Your task to perform on an android device: toggle translation in the chrome app Image 0: 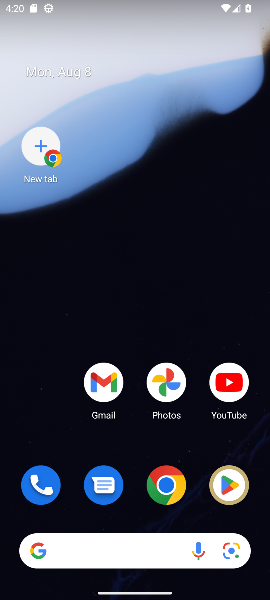
Step 0: drag from (178, 319) to (155, 164)
Your task to perform on an android device: toggle translation in the chrome app Image 1: 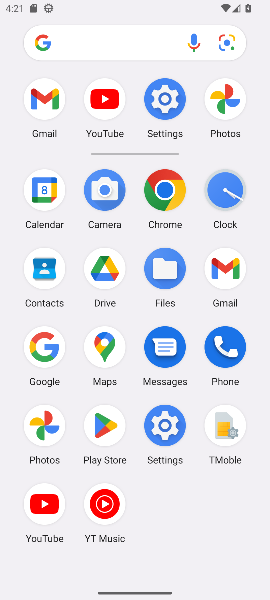
Step 1: click (165, 192)
Your task to perform on an android device: toggle translation in the chrome app Image 2: 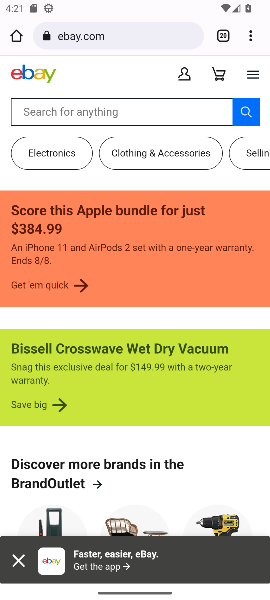
Step 2: drag from (250, 29) to (137, 460)
Your task to perform on an android device: toggle translation in the chrome app Image 3: 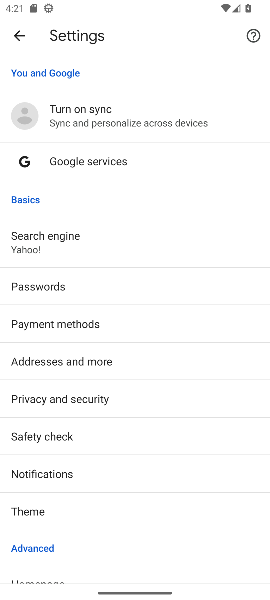
Step 3: drag from (63, 534) to (4, 336)
Your task to perform on an android device: toggle translation in the chrome app Image 4: 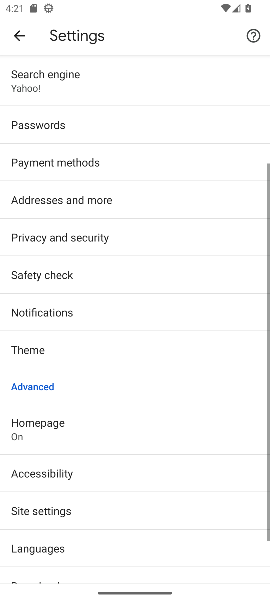
Step 4: drag from (42, 389) to (68, 175)
Your task to perform on an android device: toggle translation in the chrome app Image 5: 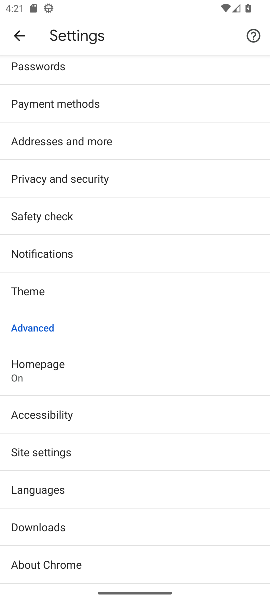
Step 5: click (43, 497)
Your task to perform on an android device: toggle translation in the chrome app Image 6: 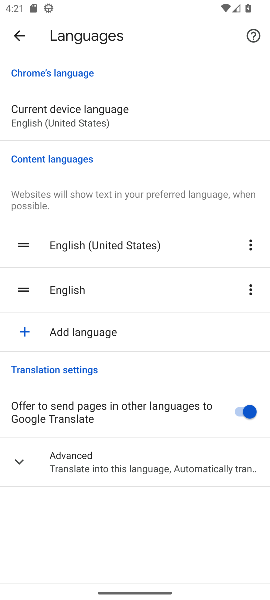
Step 6: click (251, 408)
Your task to perform on an android device: toggle translation in the chrome app Image 7: 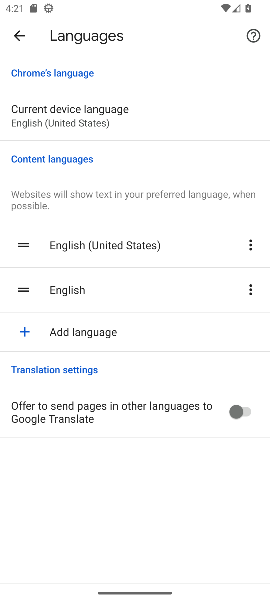
Step 7: task complete